Your task to perform on an android device: open app "HBO Max: Stream TV & Movies" (install if not already installed) and go to login screen Image 0: 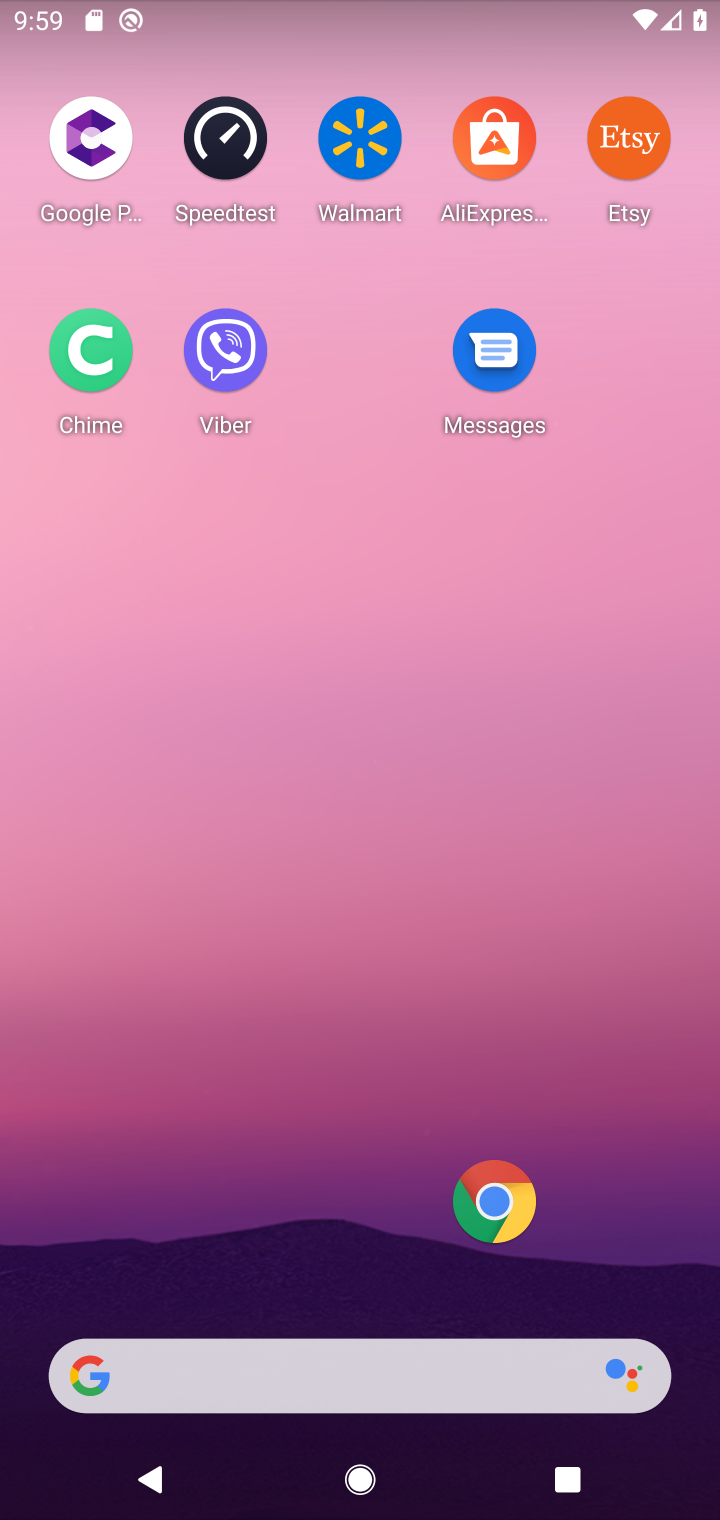
Step 0: drag from (320, 1050) to (363, 452)
Your task to perform on an android device: open app "HBO Max: Stream TV & Movies" (install if not already installed) and go to login screen Image 1: 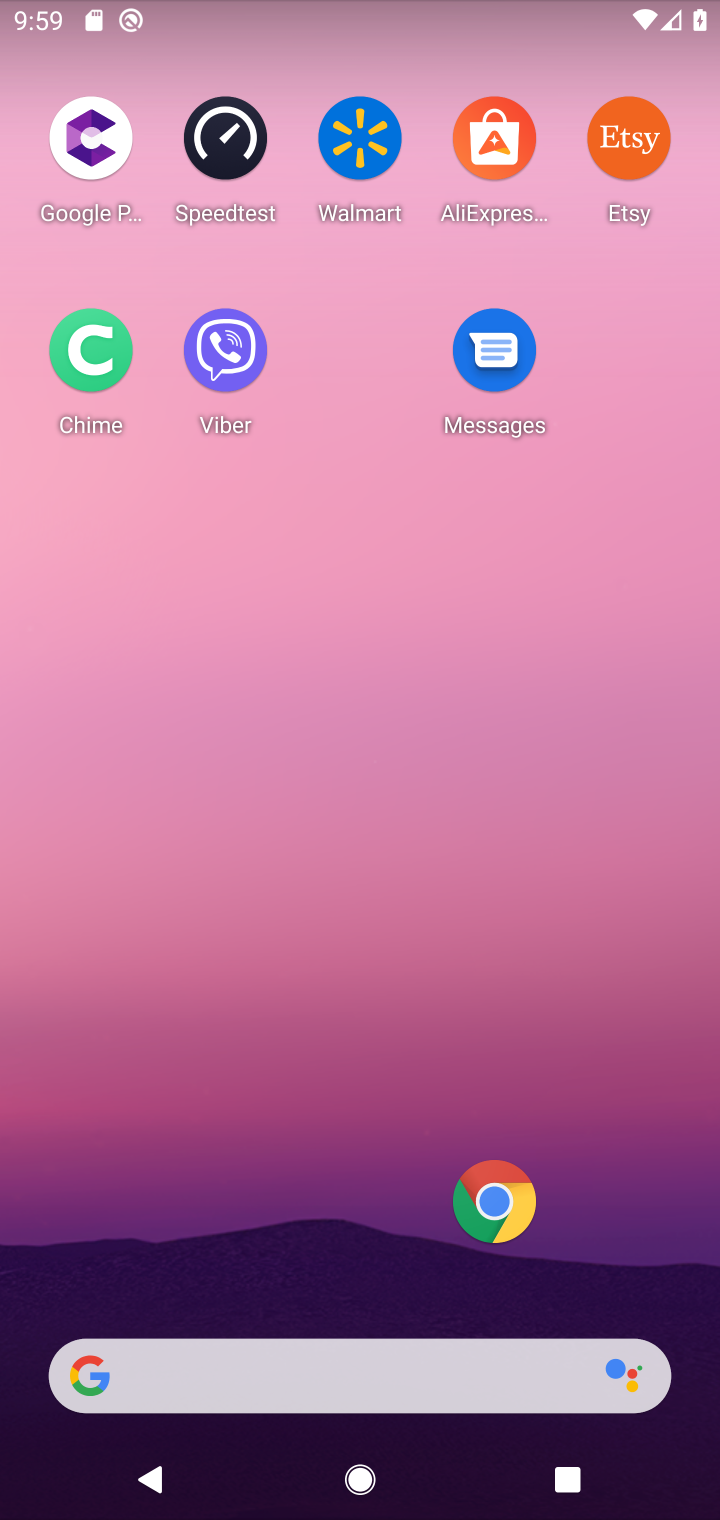
Step 1: drag from (248, 1293) to (275, 354)
Your task to perform on an android device: open app "HBO Max: Stream TV & Movies" (install if not already installed) and go to login screen Image 2: 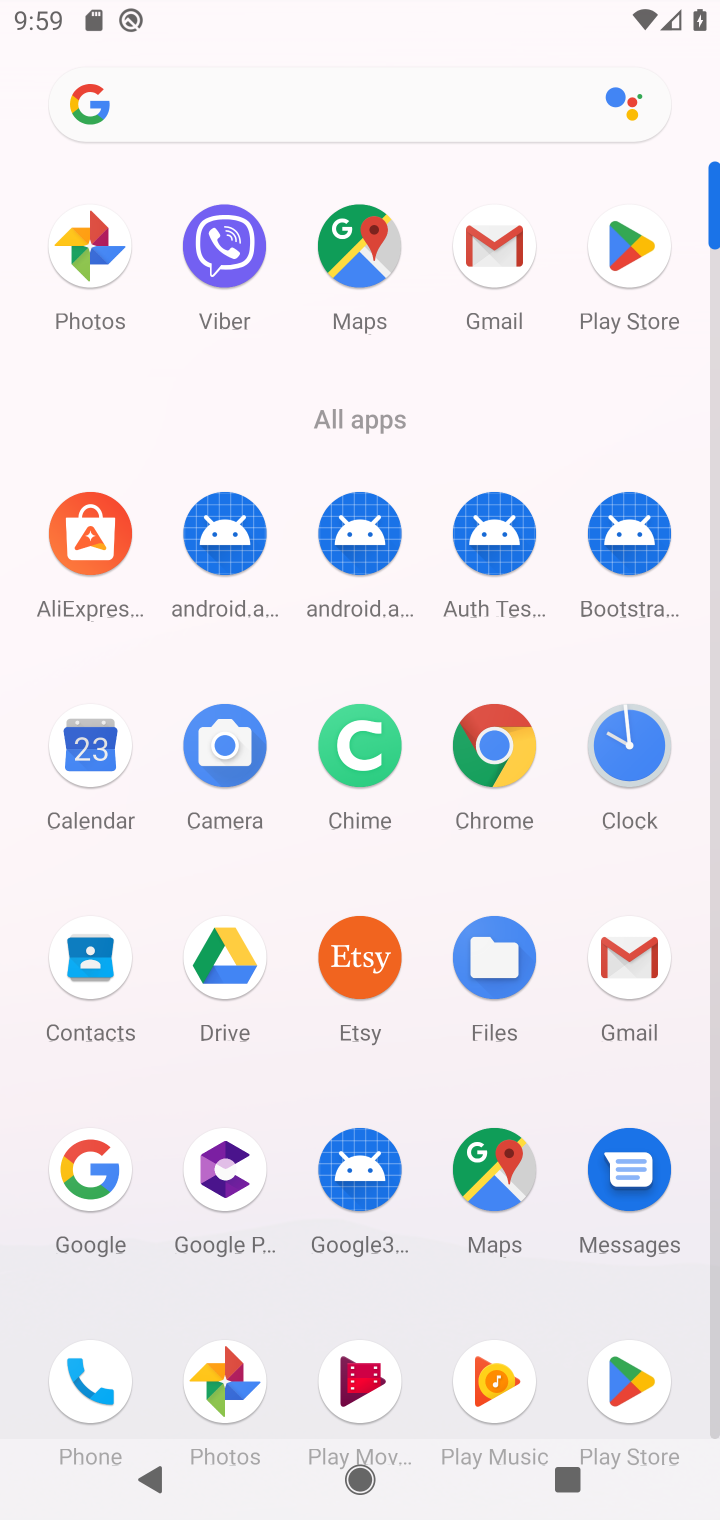
Step 2: click (613, 225)
Your task to perform on an android device: open app "HBO Max: Stream TV & Movies" (install if not already installed) and go to login screen Image 3: 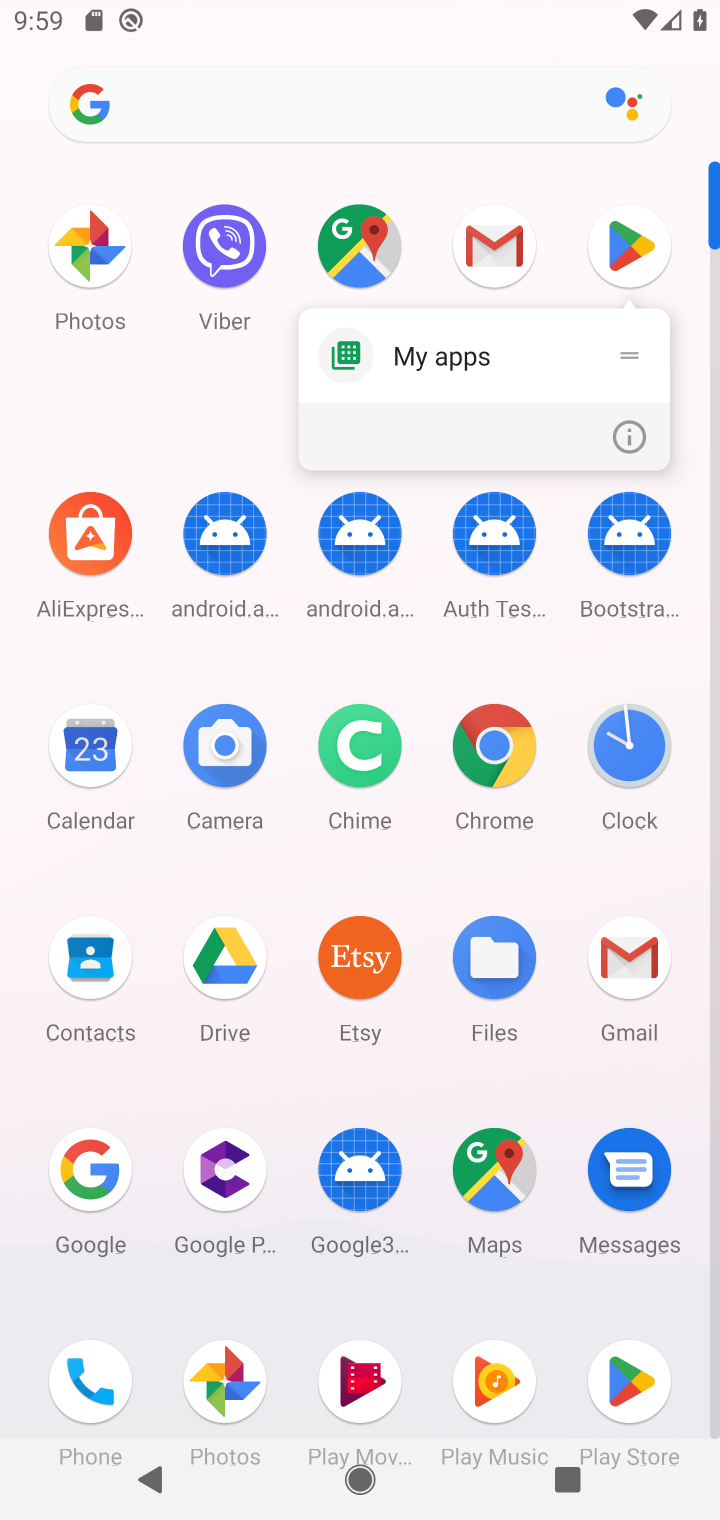
Step 3: click (612, 248)
Your task to perform on an android device: open app "HBO Max: Stream TV & Movies" (install if not already installed) and go to login screen Image 4: 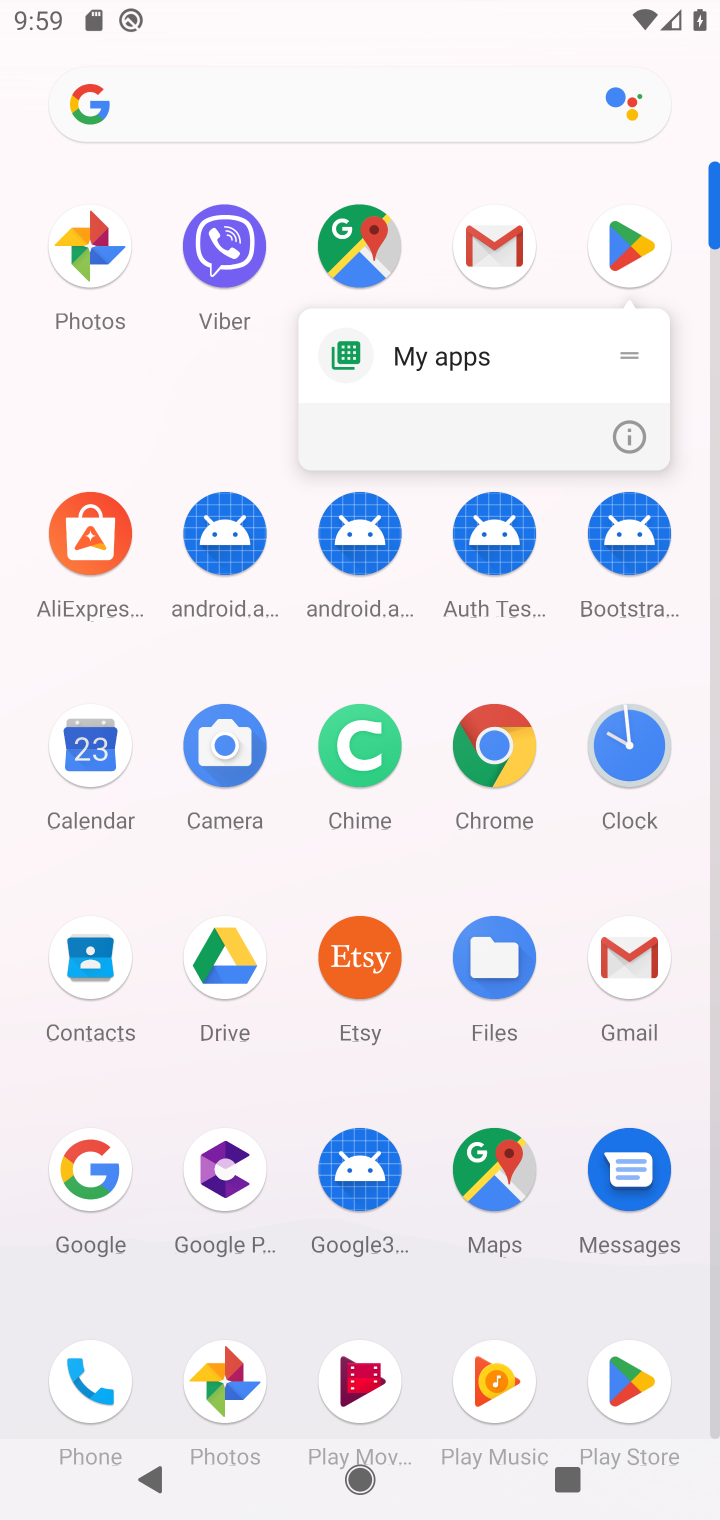
Step 4: click (624, 1371)
Your task to perform on an android device: open app "HBO Max: Stream TV & Movies" (install if not already installed) and go to login screen Image 5: 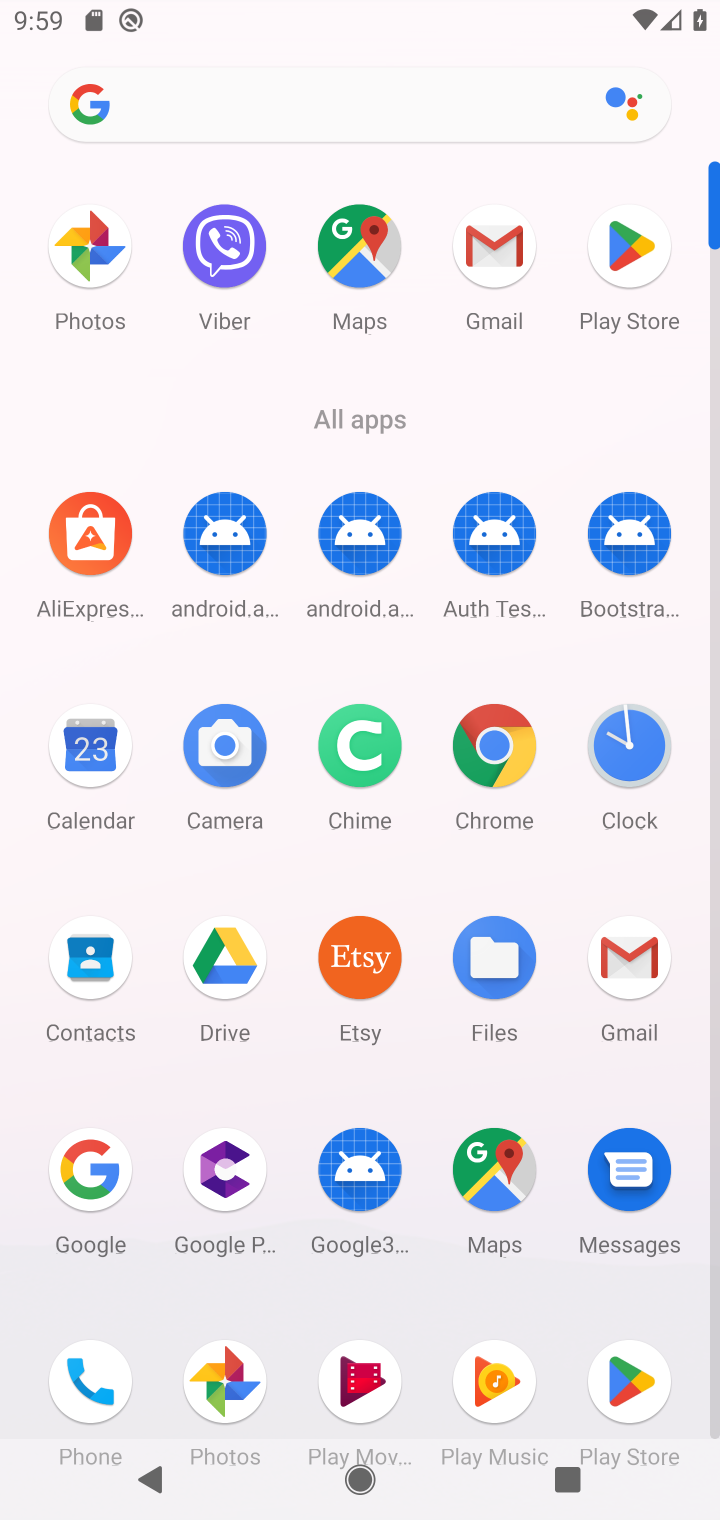
Step 5: click (630, 1389)
Your task to perform on an android device: open app "HBO Max: Stream TV & Movies" (install if not already installed) and go to login screen Image 6: 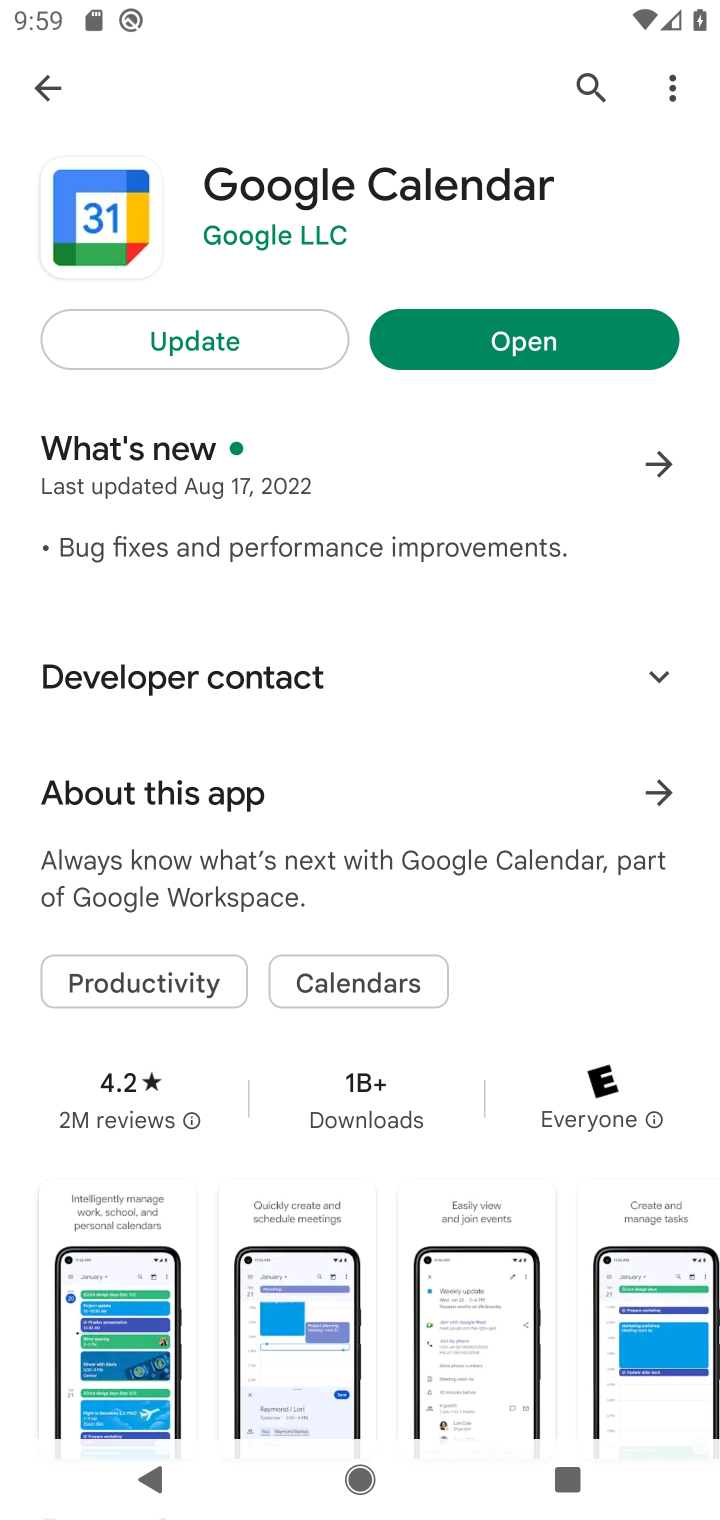
Step 6: click (59, 87)
Your task to perform on an android device: open app "HBO Max: Stream TV & Movies" (install if not already installed) and go to login screen Image 7: 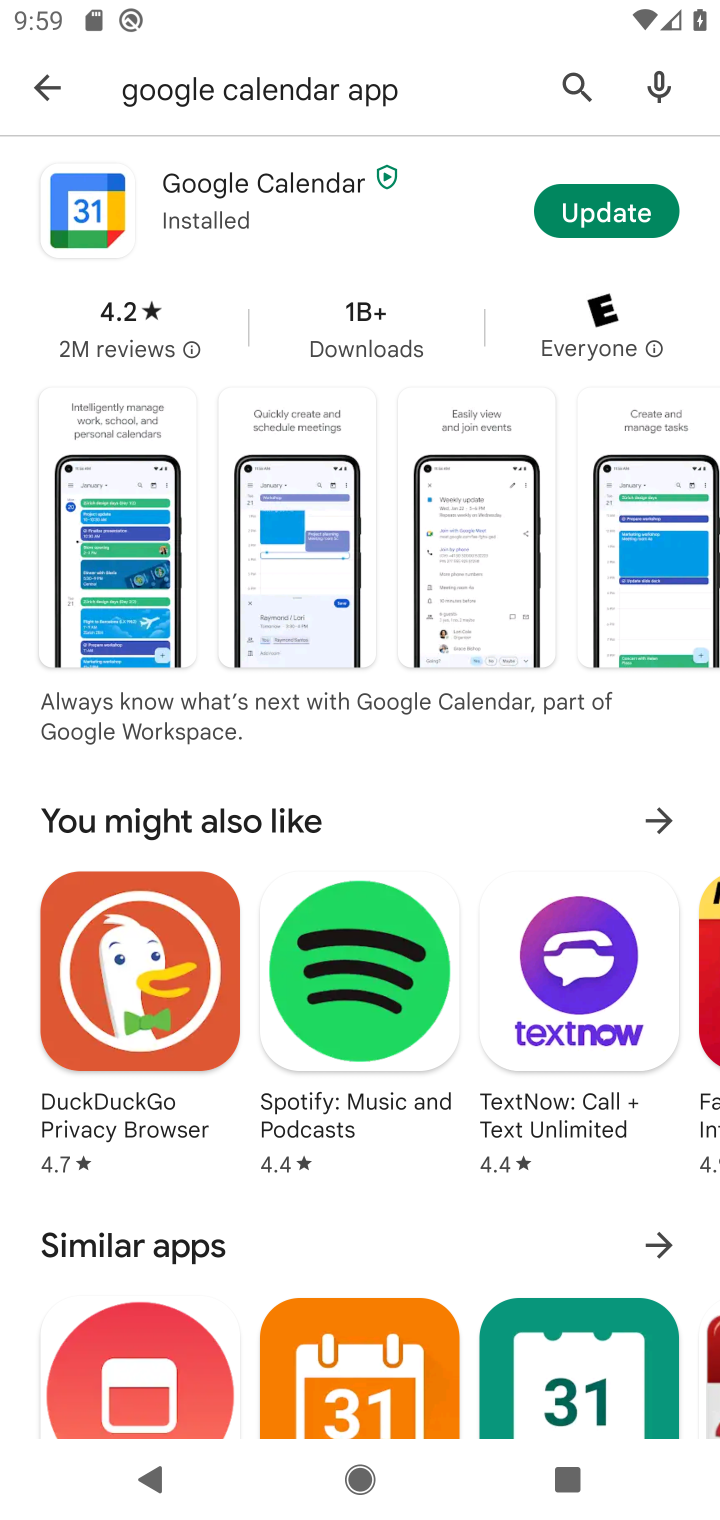
Step 7: click (591, 66)
Your task to perform on an android device: open app "HBO Max: Stream TV & Movies" (install if not already installed) and go to login screen Image 8: 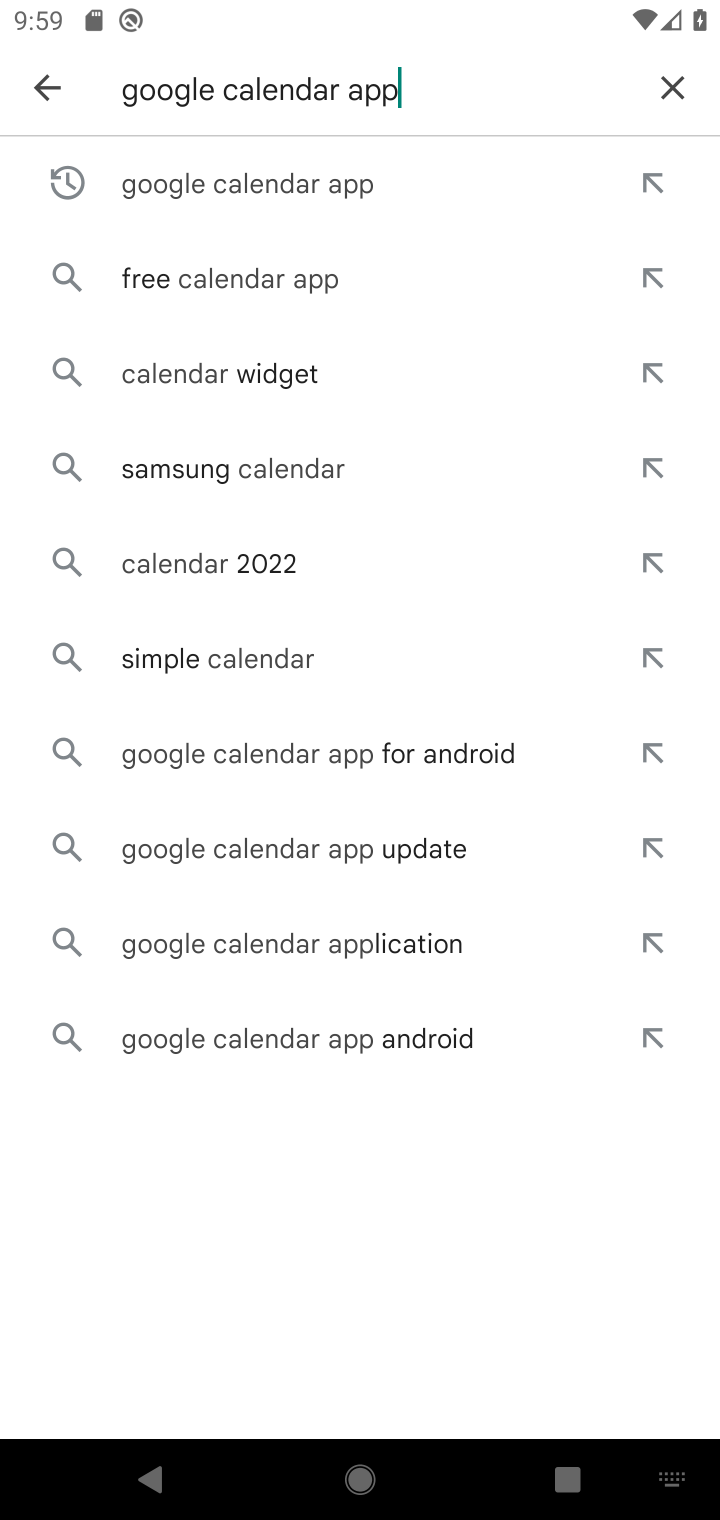
Step 8: click (689, 86)
Your task to perform on an android device: open app "HBO Max: Stream TV & Movies" (install if not already installed) and go to login screen Image 9: 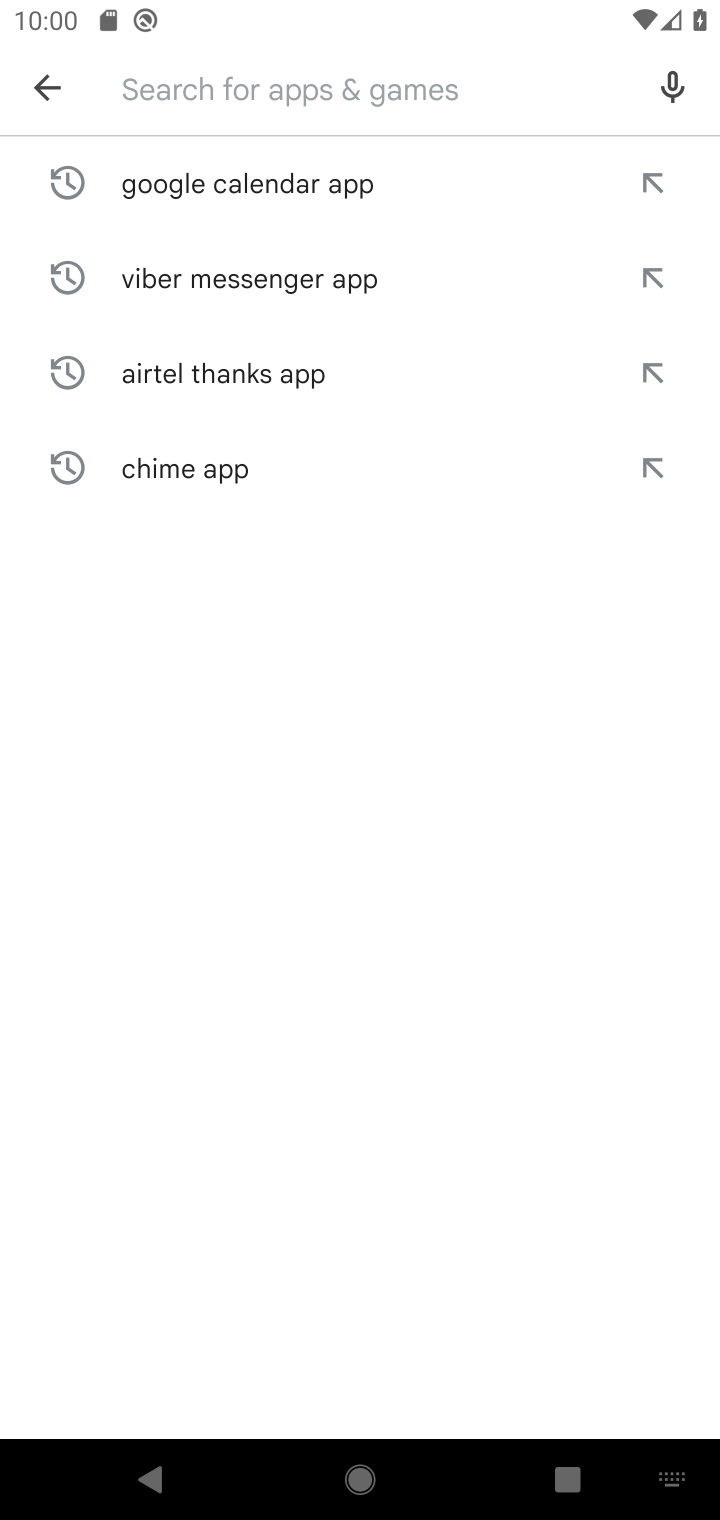
Step 9: click (456, 86)
Your task to perform on an android device: open app "HBO Max: Stream TV & Movies" (install if not already installed) and go to login screen Image 10: 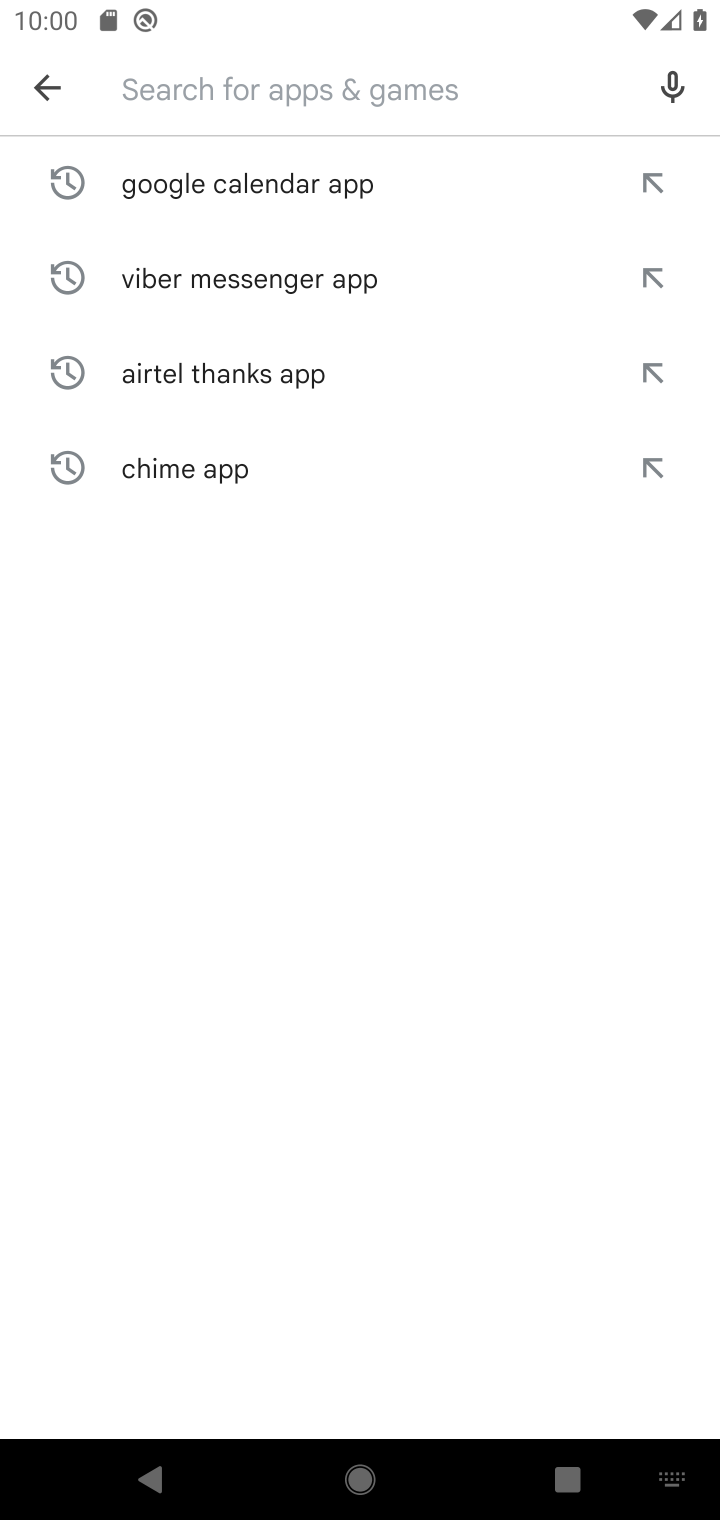
Step 10: type "hbo "
Your task to perform on an android device: open app "HBO Max: Stream TV & Movies" (install if not already installed) and go to login screen Image 11: 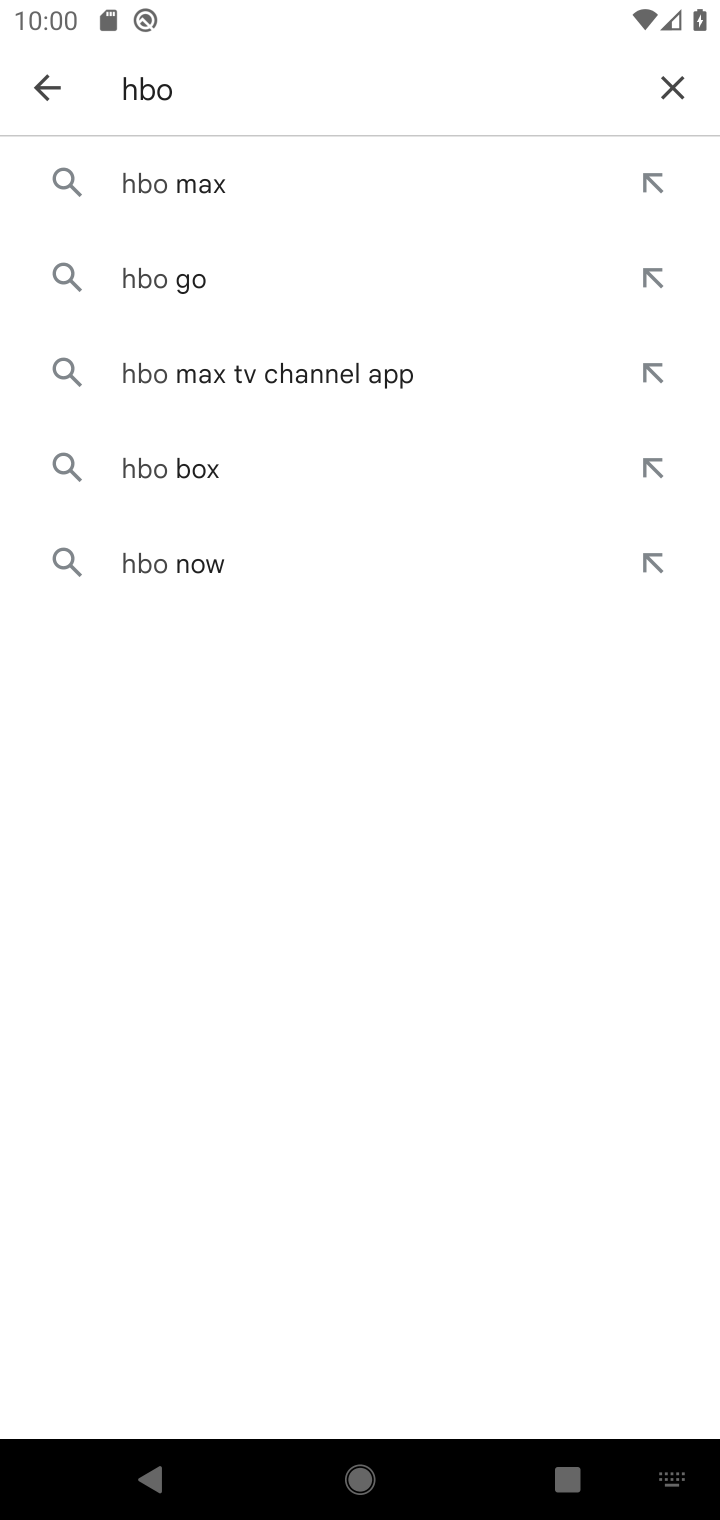
Step 11: click (202, 192)
Your task to perform on an android device: open app "HBO Max: Stream TV & Movies" (install if not already installed) and go to login screen Image 12: 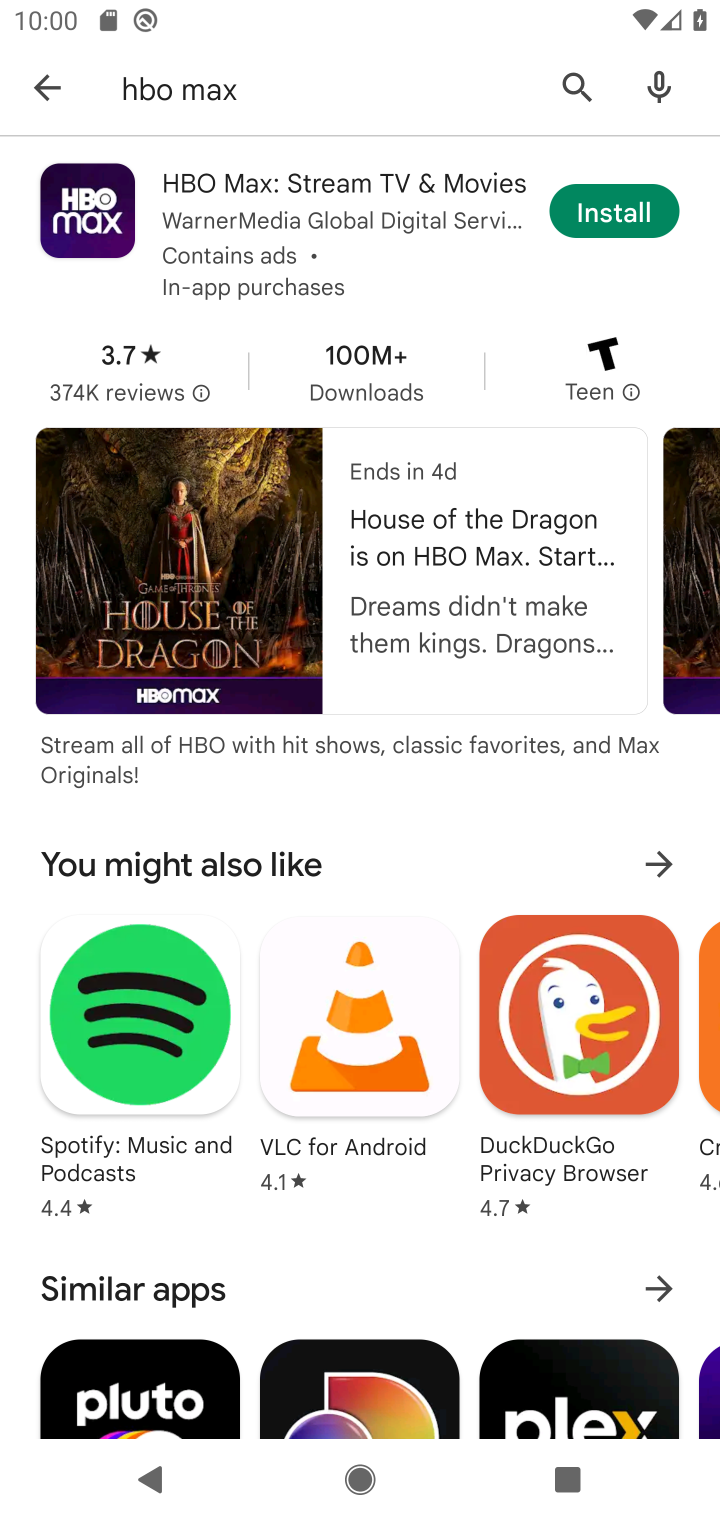
Step 12: click (603, 201)
Your task to perform on an android device: open app "HBO Max: Stream TV & Movies" (install if not already installed) and go to login screen Image 13: 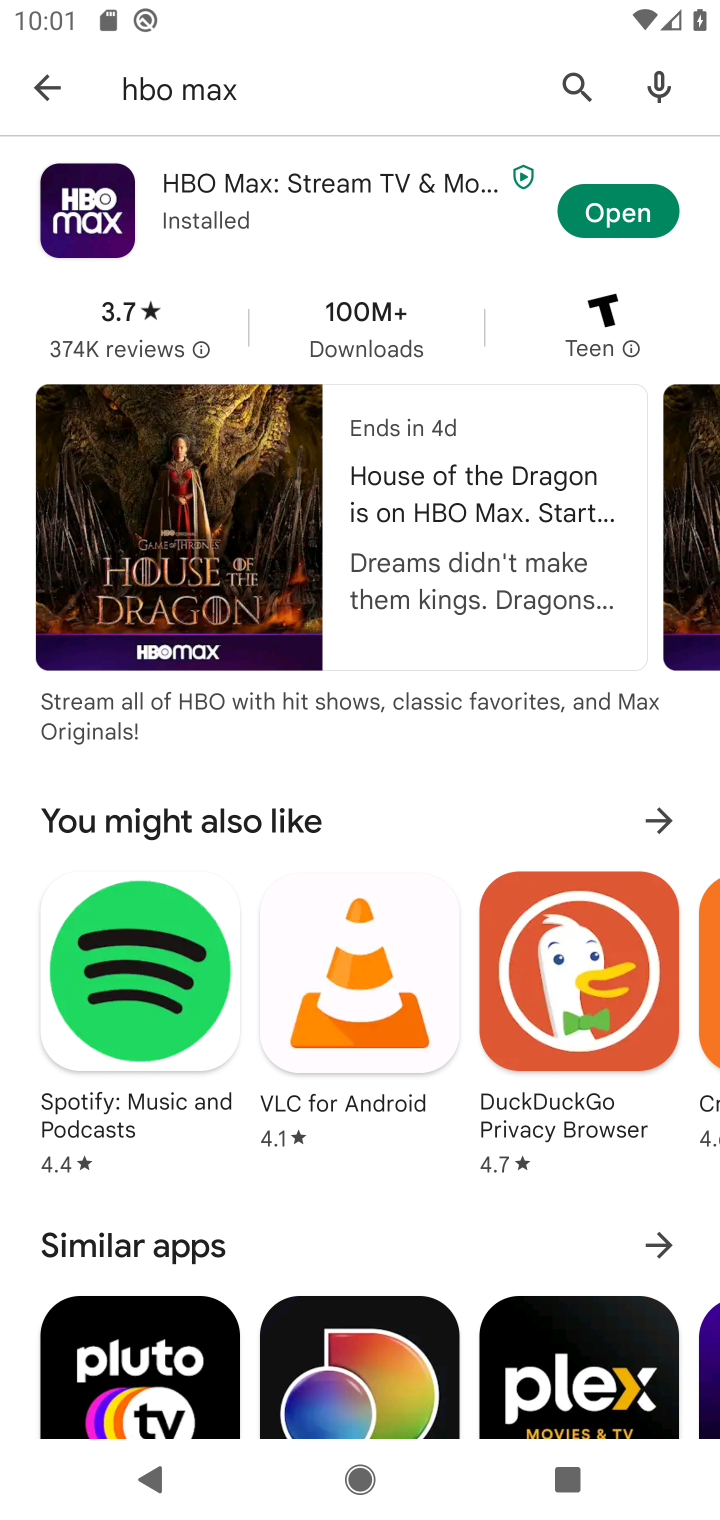
Step 13: click (604, 206)
Your task to perform on an android device: open app "HBO Max: Stream TV & Movies" (install if not already installed) and go to login screen Image 14: 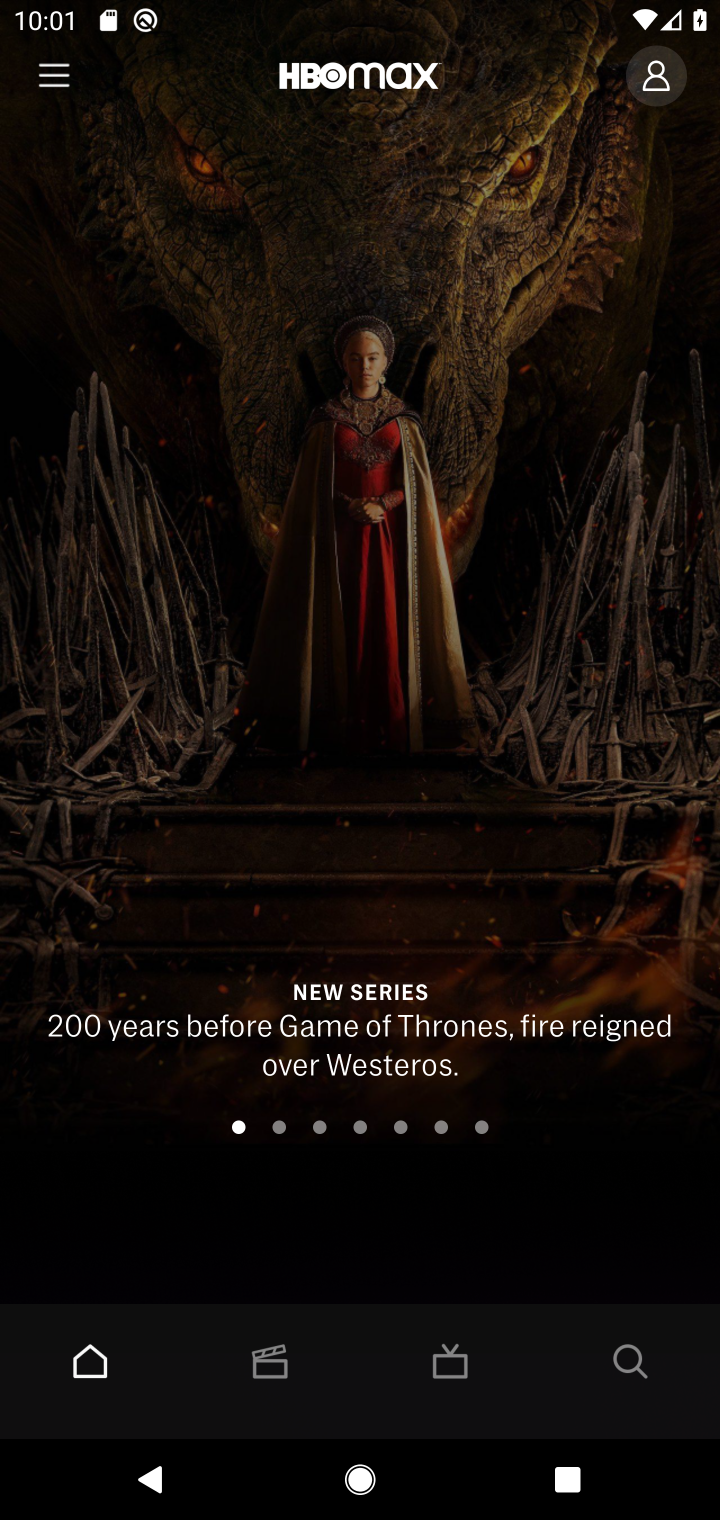
Step 14: task complete